Your task to perform on an android device: refresh tabs in the chrome app Image 0: 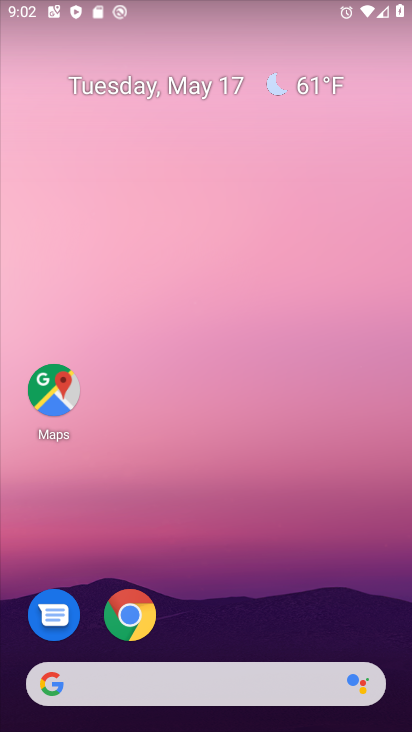
Step 0: click (143, 614)
Your task to perform on an android device: refresh tabs in the chrome app Image 1: 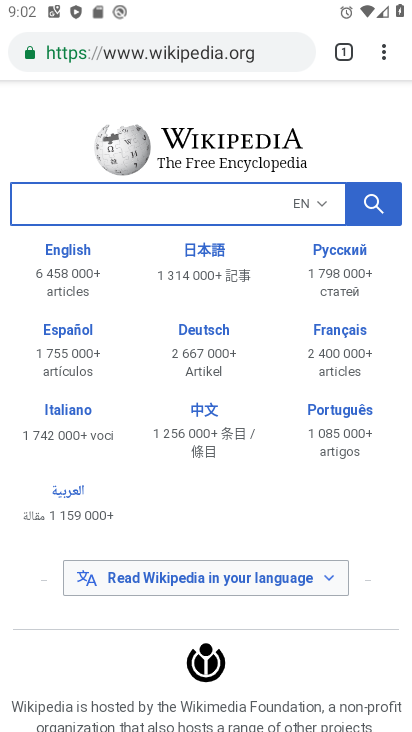
Step 1: click (383, 50)
Your task to perform on an android device: refresh tabs in the chrome app Image 2: 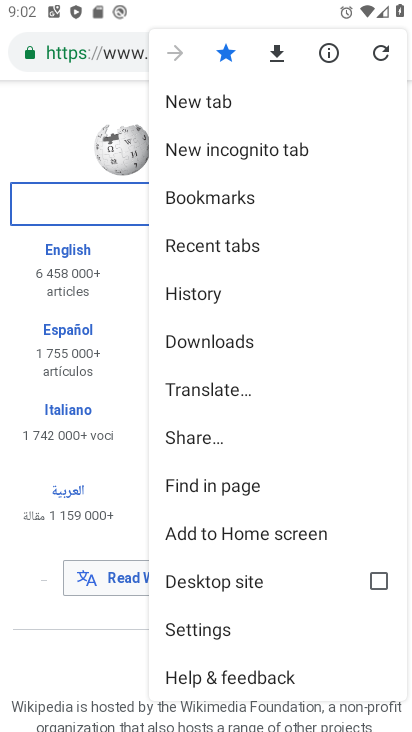
Step 2: click (383, 50)
Your task to perform on an android device: refresh tabs in the chrome app Image 3: 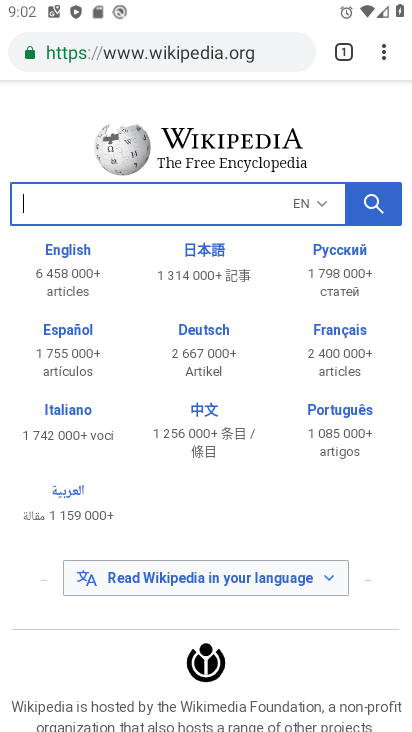
Step 3: task complete